Your task to perform on an android device: turn on improve location accuracy Image 0: 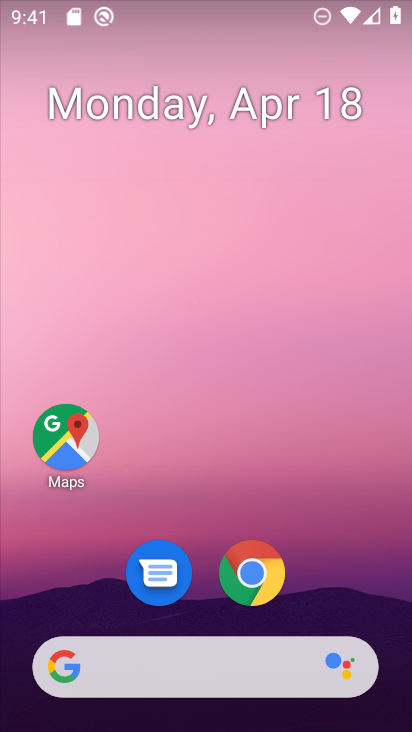
Step 0: drag from (359, 588) to (291, 43)
Your task to perform on an android device: turn on improve location accuracy Image 1: 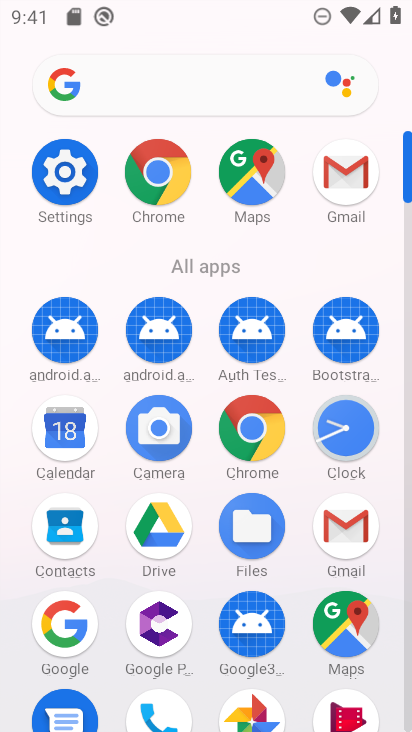
Step 1: click (55, 181)
Your task to perform on an android device: turn on improve location accuracy Image 2: 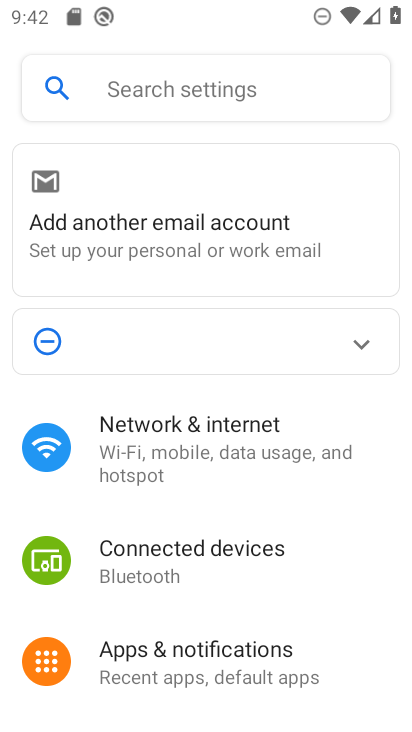
Step 2: drag from (214, 651) to (213, 81)
Your task to perform on an android device: turn on improve location accuracy Image 3: 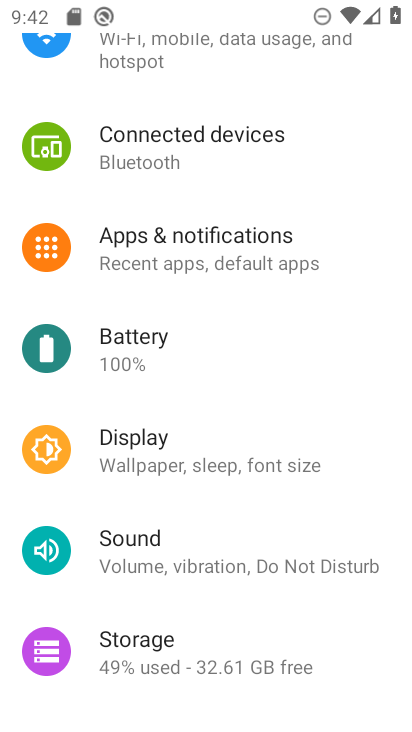
Step 3: drag from (175, 557) to (233, 155)
Your task to perform on an android device: turn on improve location accuracy Image 4: 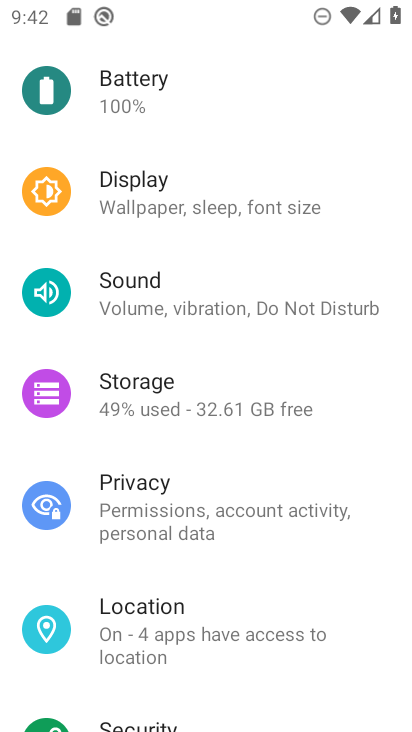
Step 4: click (152, 613)
Your task to perform on an android device: turn on improve location accuracy Image 5: 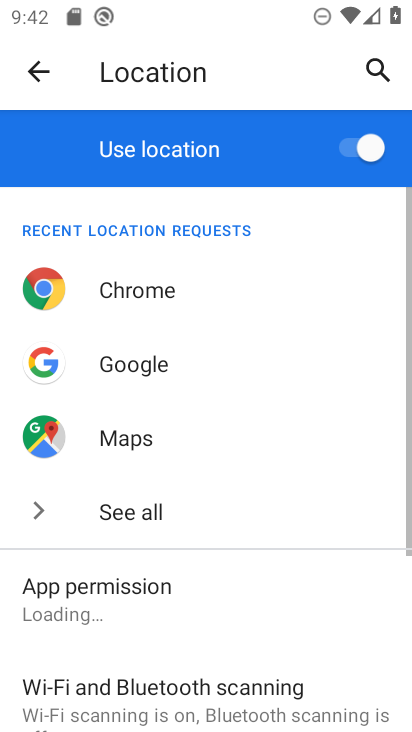
Step 5: drag from (152, 613) to (256, 117)
Your task to perform on an android device: turn on improve location accuracy Image 6: 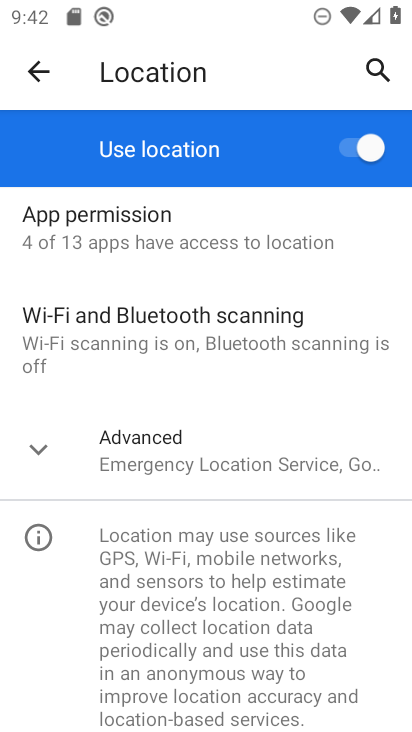
Step 6: click (40, 441)
Your task to perform on an android device: turn on improve location accuracy Image 7: 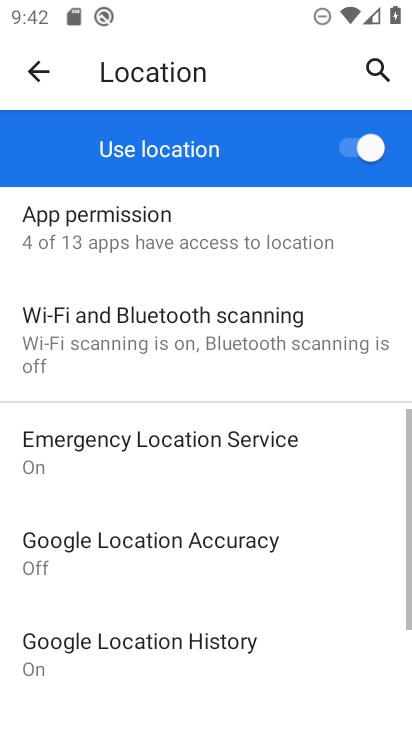
Step 7: click (152, 562)
Your task to perform on an android device: turn on improve location accuracy Image 8: 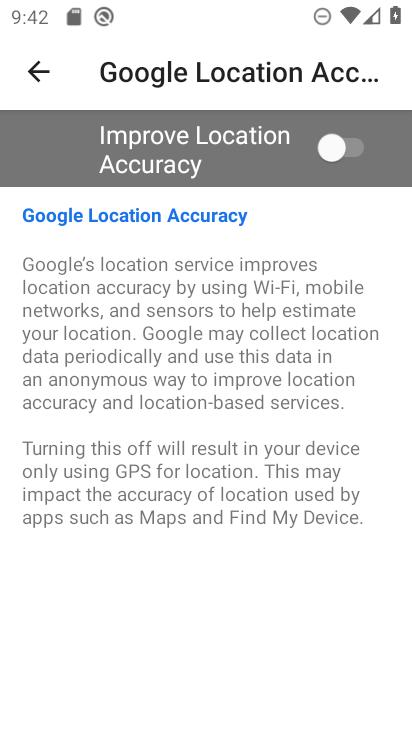
Step 8: click (326, 140)
Your task to perform on an android device: turn on improve location accuracy Image 9: 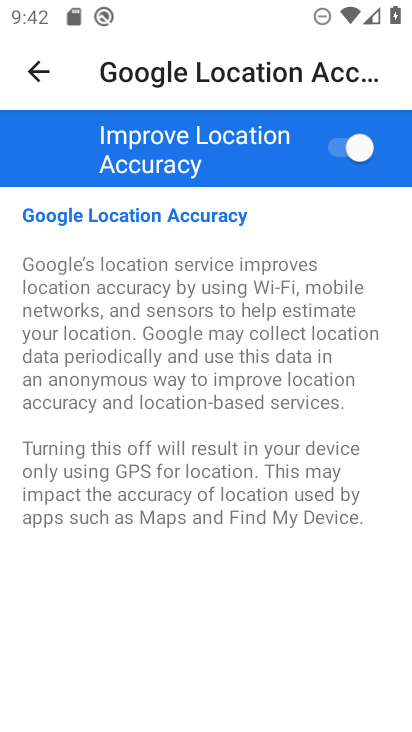
Step 9: task complete